Your task to perform on an android device: Show me popular videos on Youtube Image 0: 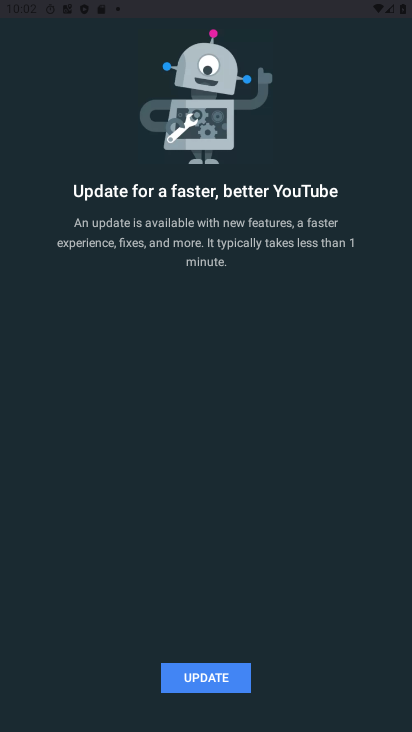
Step 0: click (188, 688)
Your task to perform on an android device: Show me popular videos on Youtube Image 1: 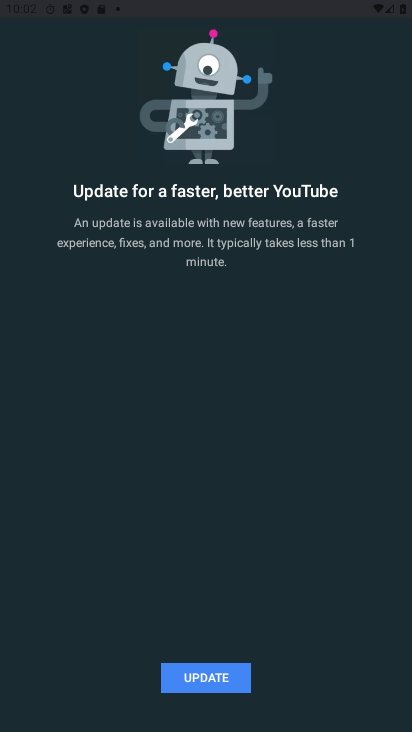
Step 1: click (189, 681)
Your task to perform on an android device: Show me popular videos on Youtube Image 2: 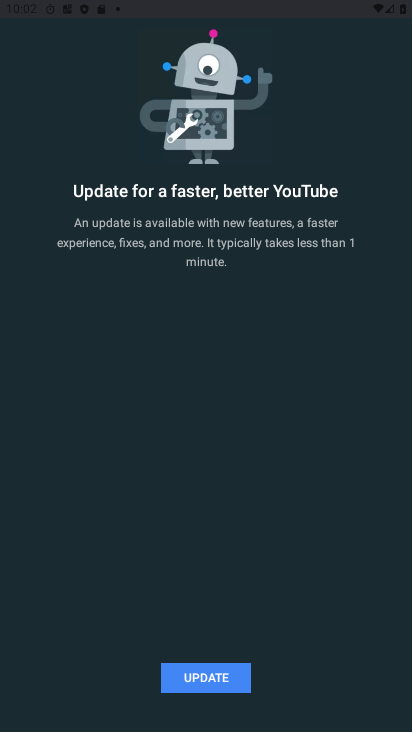
Step 2: click (189, 681)
Your task to perform on an android device: Show me popular videos on Youtube Image 3: 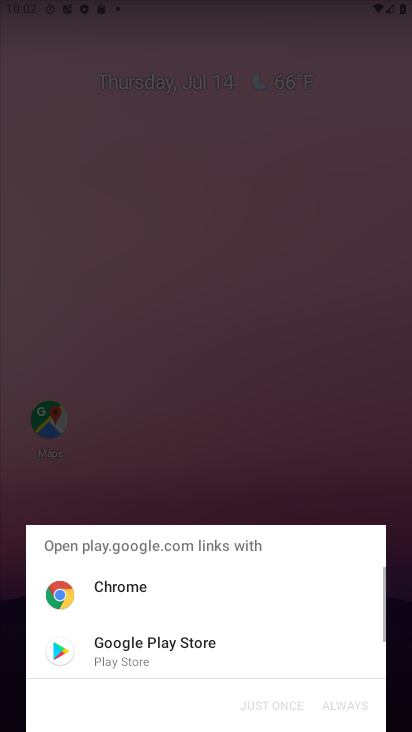
Step 3: click (126, 595)
Your task to perform on an android device: Show me popular videos on Youtube Image 4: 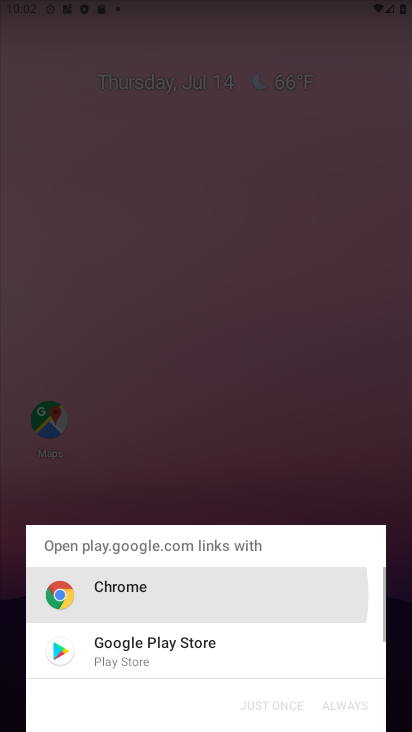
Step 4: click (125, 594)
Your task to perform on an android device: Show me popular videos on Youtube Image 5: 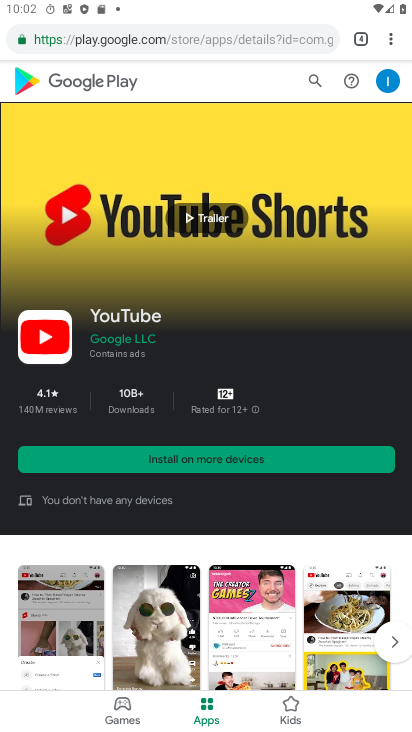
Step 5: drag from (267, 437) to (233, 65)
Your task to perform on an android device: Show me popular videos on Youtube Image 6: 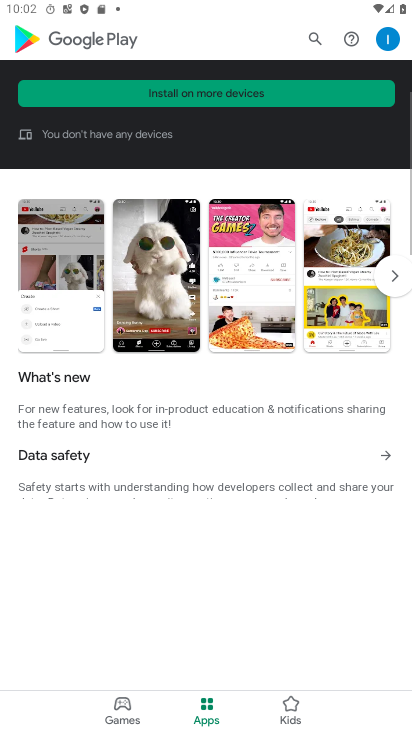
Step 6: drag from (178, 518) to (231, 217)
Your task to perform on an android device: Show me popular videos on Youtube Image 7: 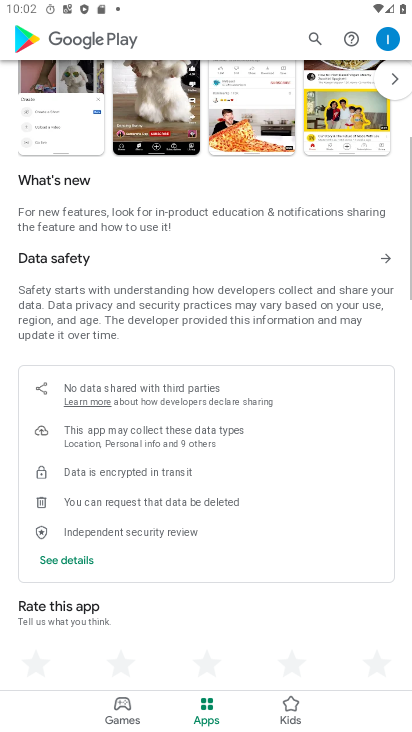
Step 7: drag from (282, 536) to (289, 269)
Your task to perform on an android device: Show me popular videos on Youtube Image 8: 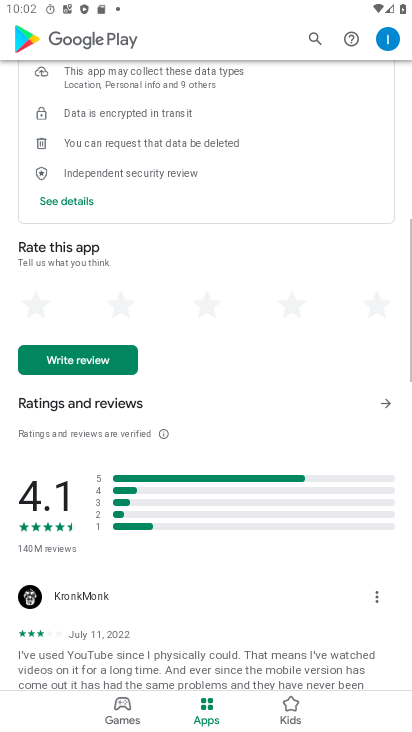
Step 8: drag from (289, 263) to (290, 729)
Your task to perform on an android device: Show me popular videos on Youtube Image 9: 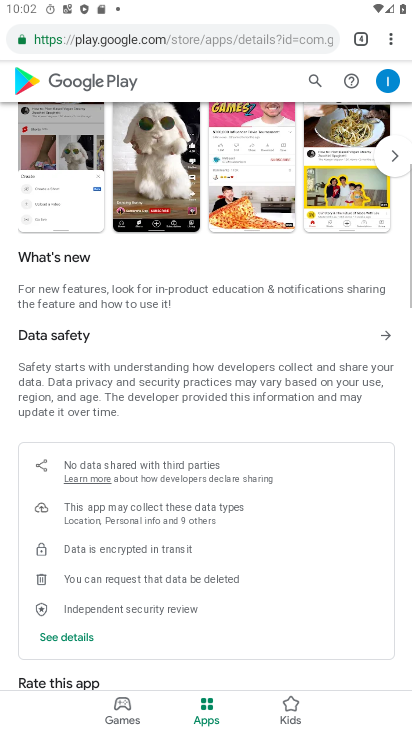
Step 9: drag from (192, 222) to (192, 587)
Your task to perform on an android device: Show me popular videos on Youtube Image 10: 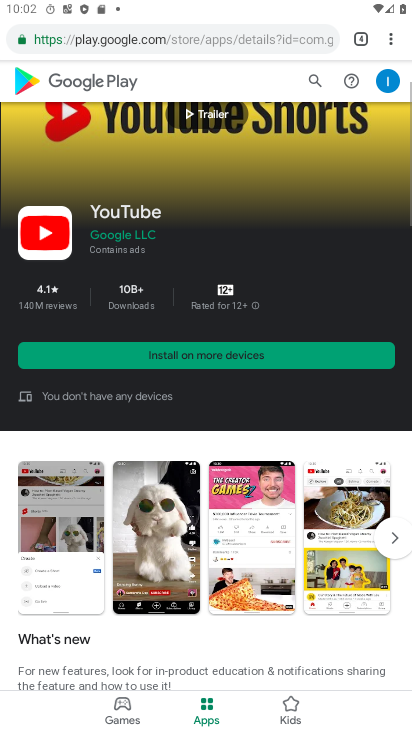
Step 10: drag from (175, 257) to (182, 670)
Your task to perform on an android device: Show me popular videos on Youtube Image 11: 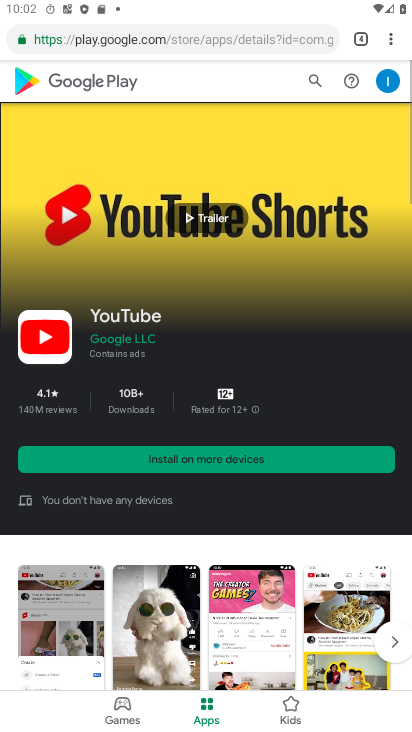
Step 11: drag from (105, 164) to (162, 392)
Your task to perform on an android device: Show me popular videos on Youtube Image 12: 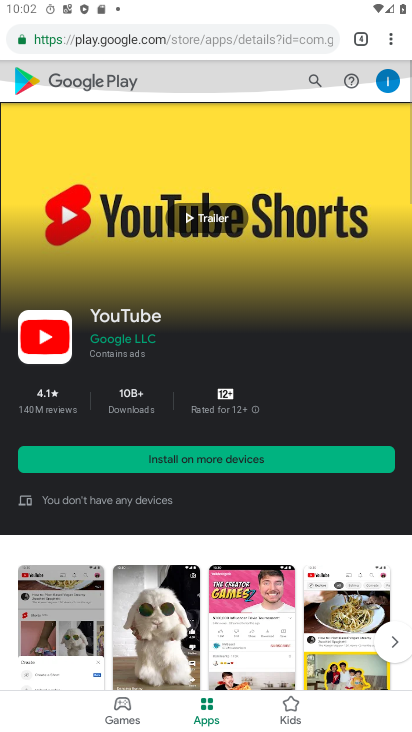
Step 12: drag from (392, 38) to (89, 185)
Your task to perform on an android device: Show me popular videos on Youtube Image 13: 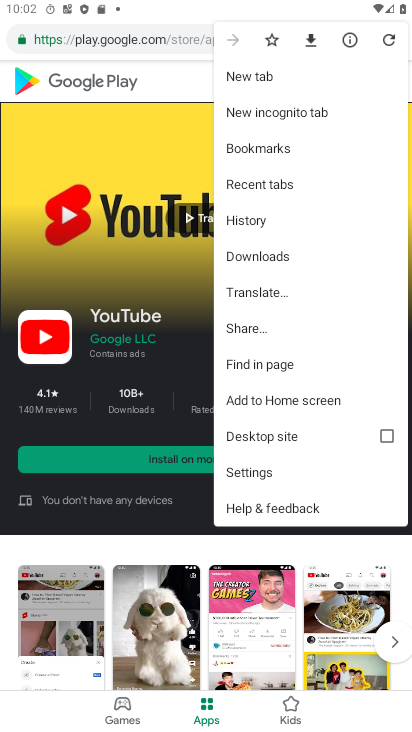
Step 13: click (103, 171)
Your task to perform on an android device: Show me popular videos on Youtube Image 14: 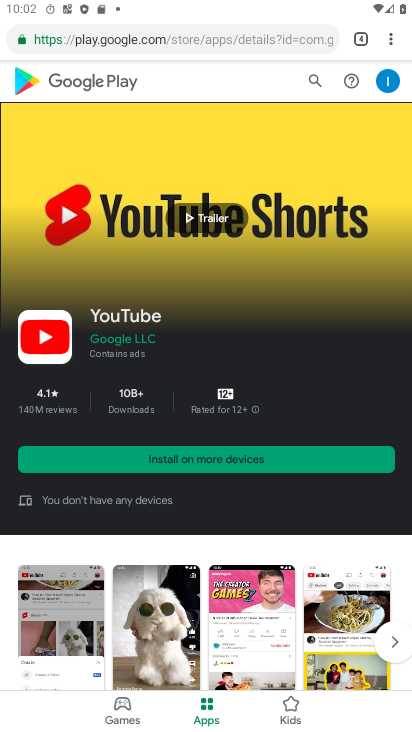
Step 14: click (195, 212)
Your task to perform on an android device: Show me popular videos on Youtube Image 15: 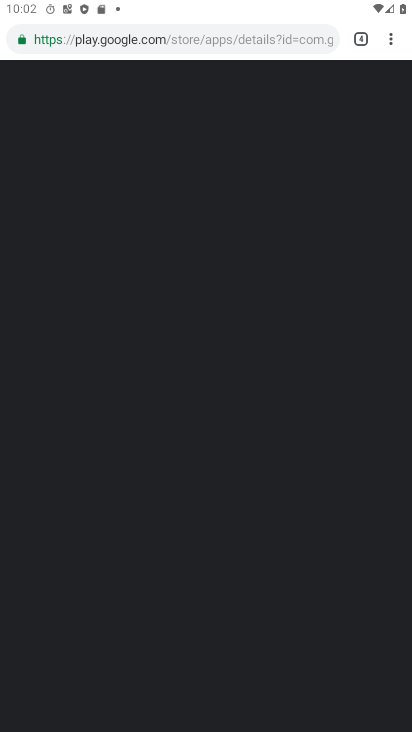
Step 15: click (195, 212)
Your task to perform on an android device: Show me popular videos on Youtube Image 16: 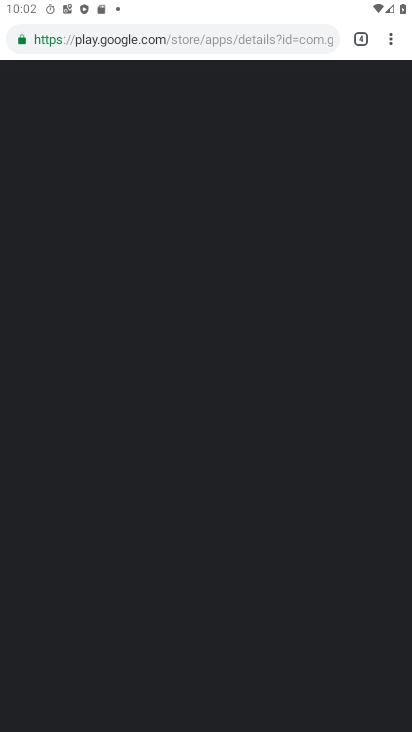
Step 16: click (218, 330)
Your task to perform on an android device: Show me popular videos on Youtube Image 17: 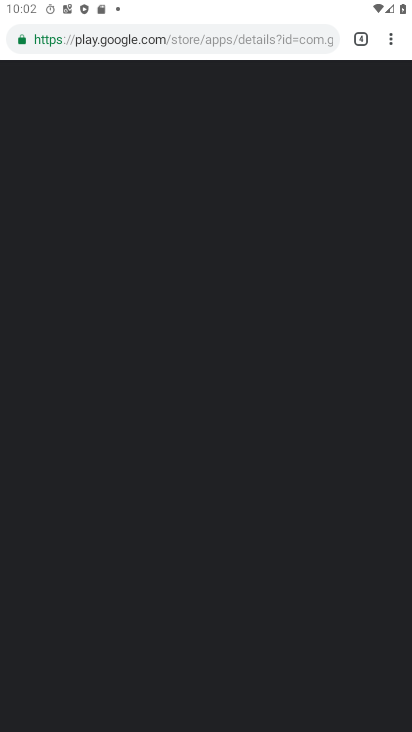
Step 17: click (217, 330)
Your task to perform on an android device: Show me popular videos on Youtube Image 18: 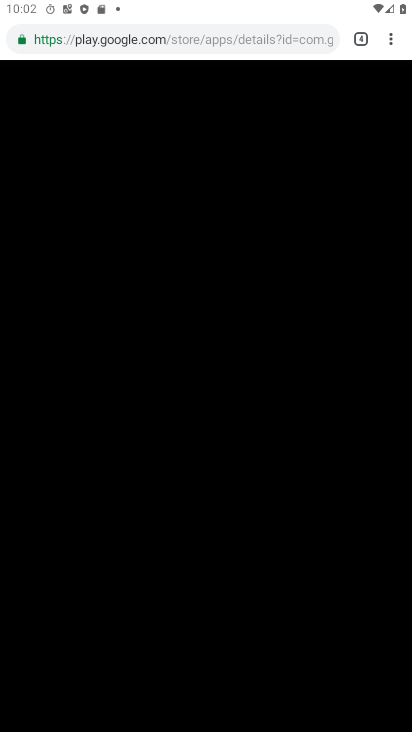
Step 18: click (124, 531)
Your task to perform on an android device: Show me popular videos on Youtube Image 19: 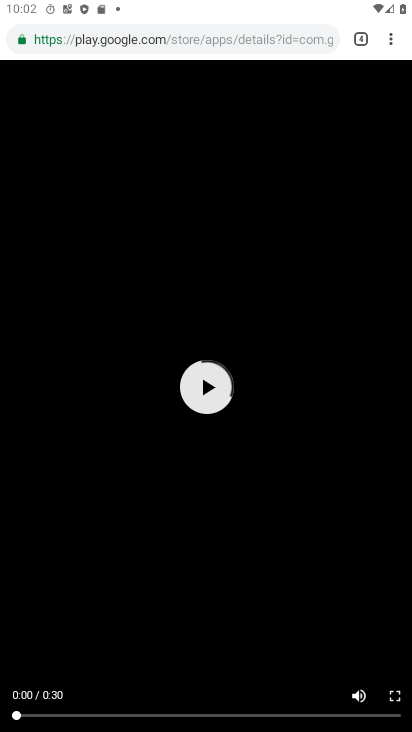
Step 19: press back button
Your task to perform on an android device: Show me popular videos on Youtube Image 20: 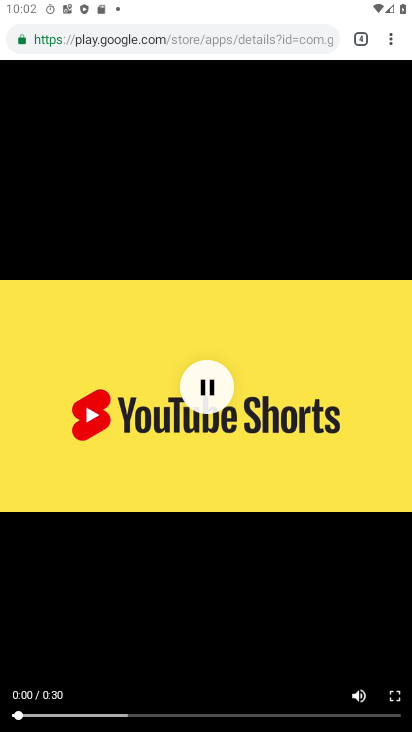
Step 20: press back button
Your task to perform on an android device: Show me popular videos on Youtube Image 21: 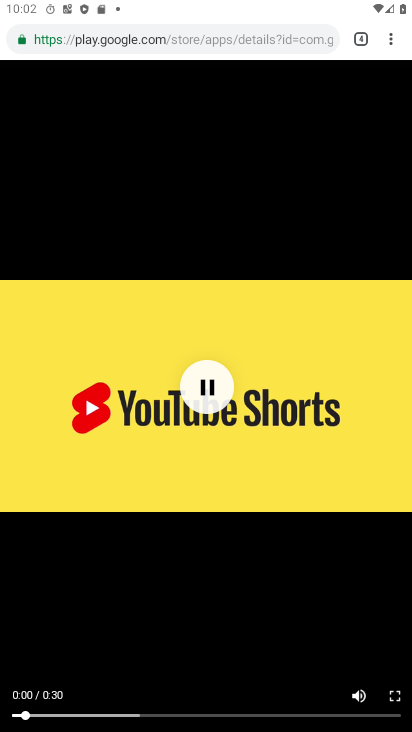
Step 21: click (360, 686)
Your task to perform on an android device: Show me popular videos on Youtube Image 22: 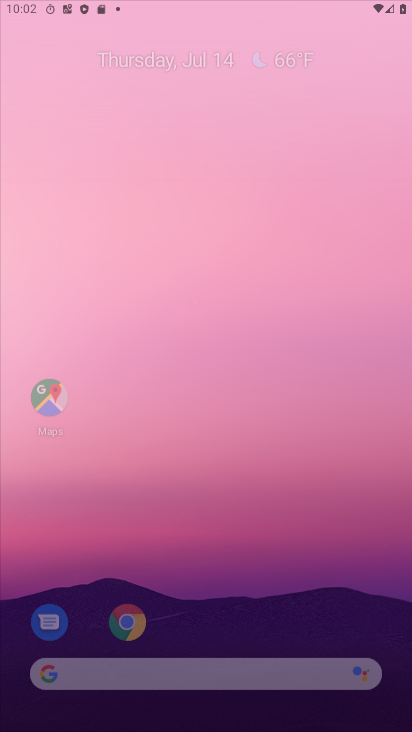
Step 22: press back button
Your task to perform on an android device: Show me popular videos on Youtube Image 23: 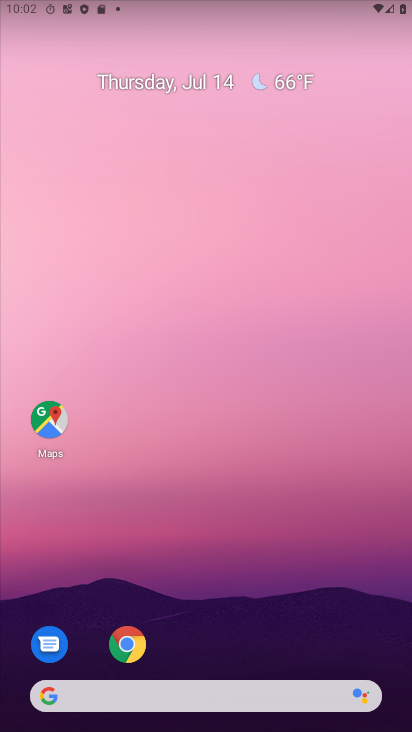
Step 23: press back button
Your task to perform on an android device: Show me popular videos on Youtube Image 24: 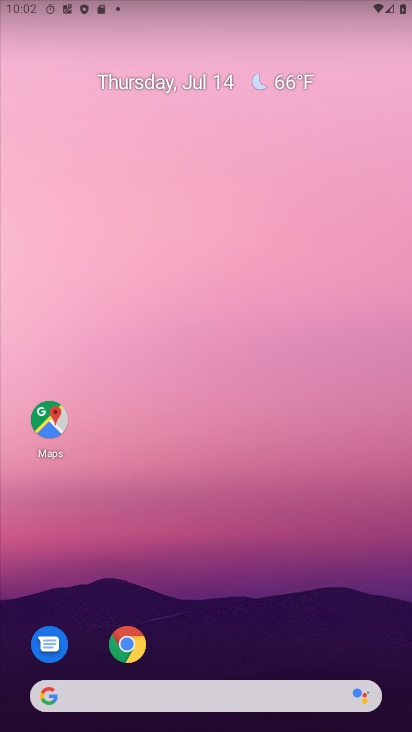
Step 24: drag from (238, 461) to (238, 7)
Your task to perform on an android device: Show me popular videos on Youtube Image 25: 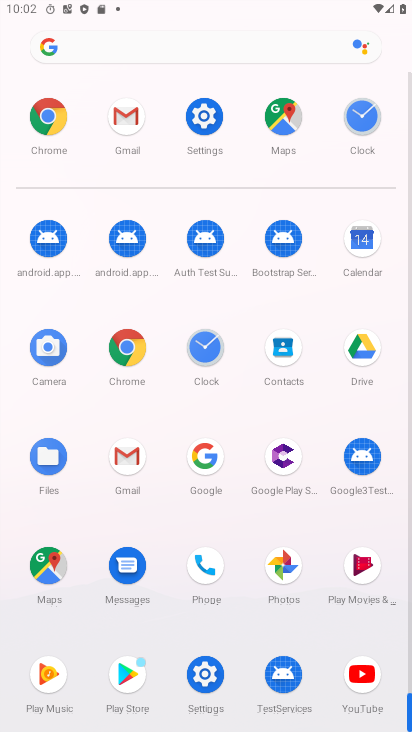
Step 25: click (365, 665)
Your task to perform on an android device: Show me popular videos on Youtube Image 26: 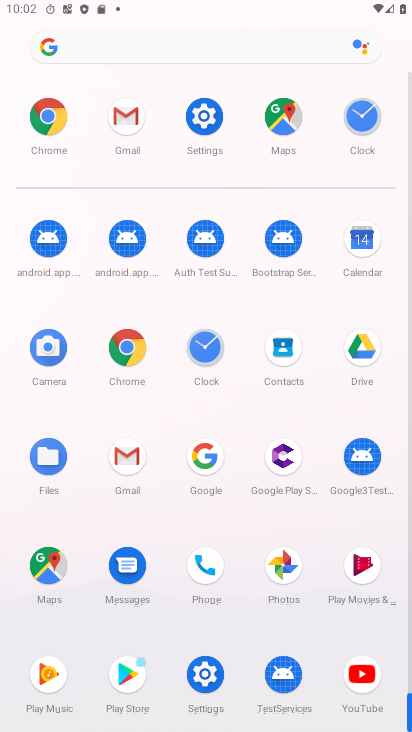
Step 26: click (365, 666)
Your task to perform on an android device: Show me popular videos on Youtube Image 27: 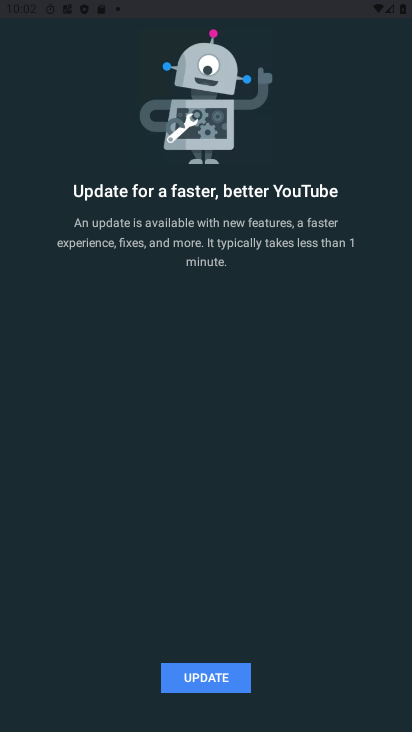
Step 27: click (202, 683)
Your task to perform on an android device: Show me popular videos on Youtube Image 28: 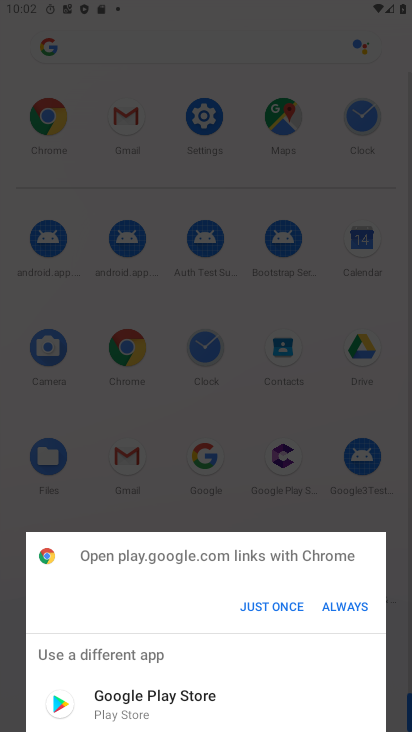
Step 28: click (130, 691)
Your task to perform on an android device: Show me popular videos on Youtube Image 29: 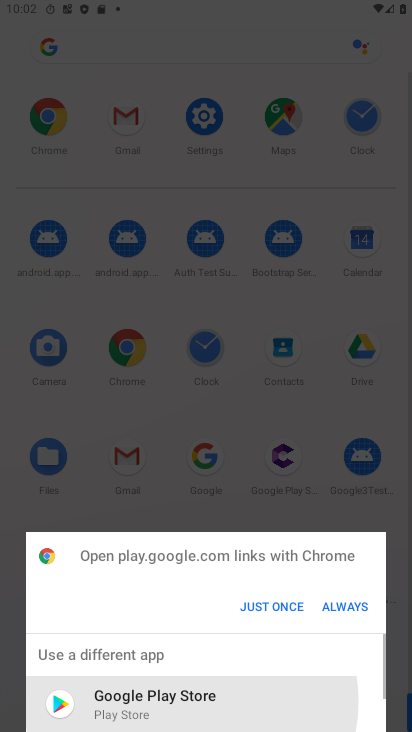
Step 29: click (136, 695)
Your task to perform on an android device: Show me popular videos on Youtube Image 30: 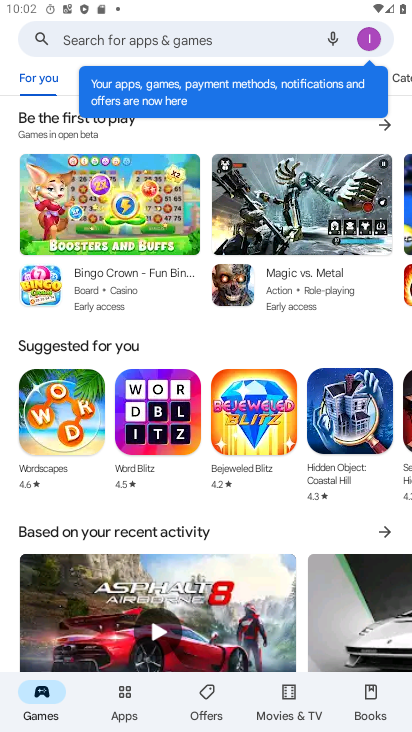
Step 30: task complete